Your task to perform on an android device: set the stopwatch Image 0: 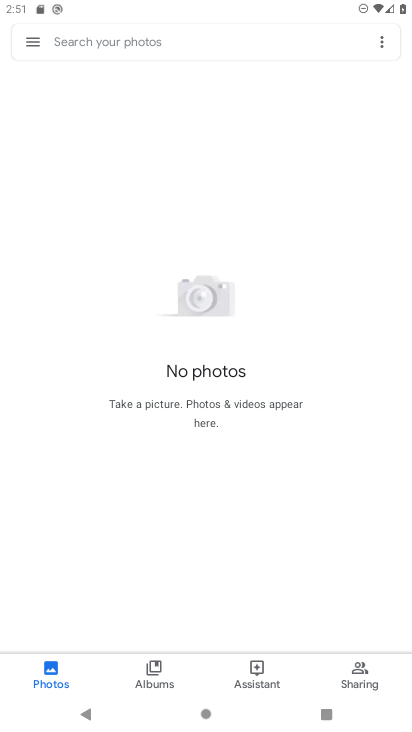
Step 0: press home button
Your task to perform on an android device: set the stopwatch Image 1: 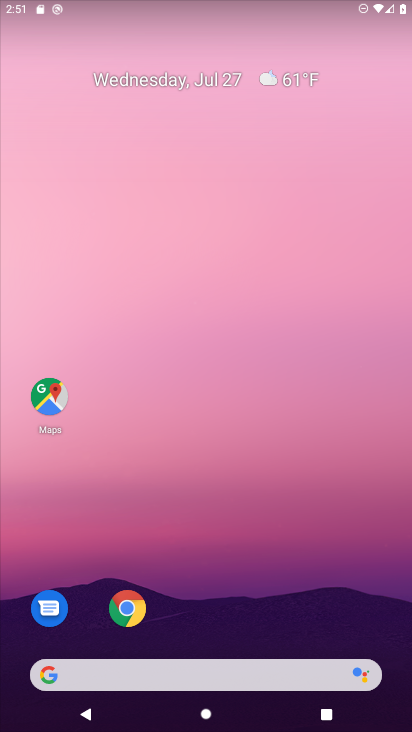
Step 1: drag from (205, 595) to (189, 194)
Your task to perform on an android device: set the stopwatch Image 2: 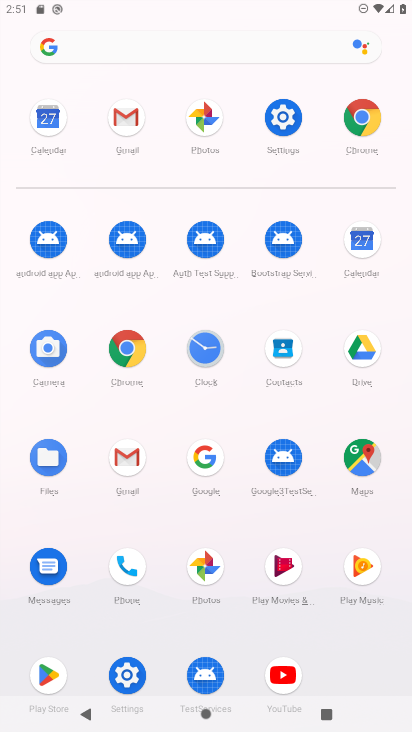
Step 2: click (200, 359)
Your task to perform on an android device: set the stopwatch Image 3: 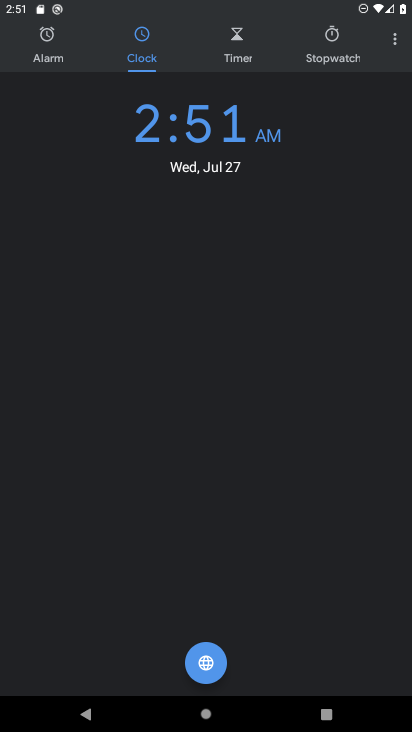
Step 3: click (328, 60)
Your task to perform on an android device: set the stopwatch Image 4: 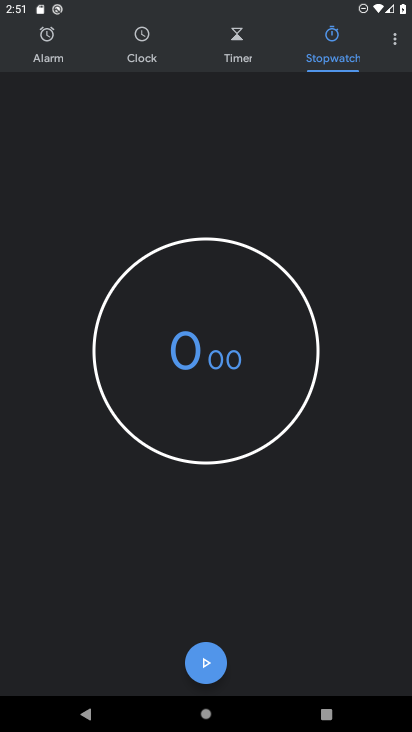
Step 4: click (212, 669)
Your task to perform on an android device: set the stopwatch Image 5: 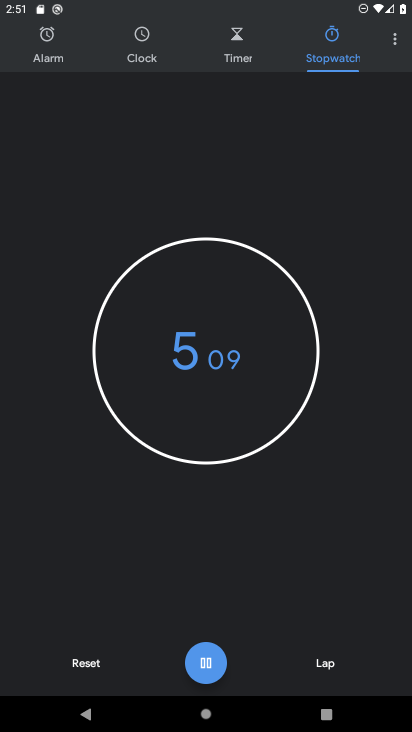
Step 5: click (214, 662)
Your task to perform on an android device: set the stopwatch Image 6: 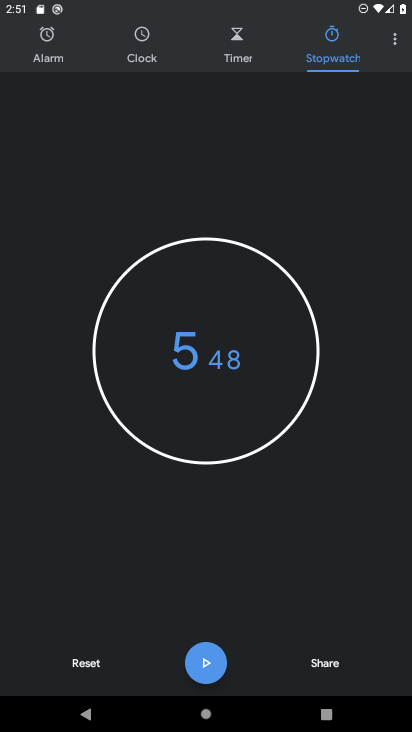
Step 6: click (214, 662)
Your task to perform on an android device: set the stopwatch Image 7: 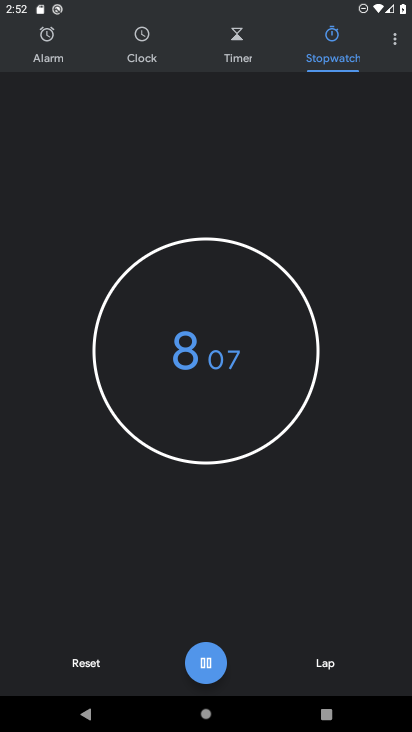
Step 7: task complete